Your task to perform on an android device: check battery use Image 0: 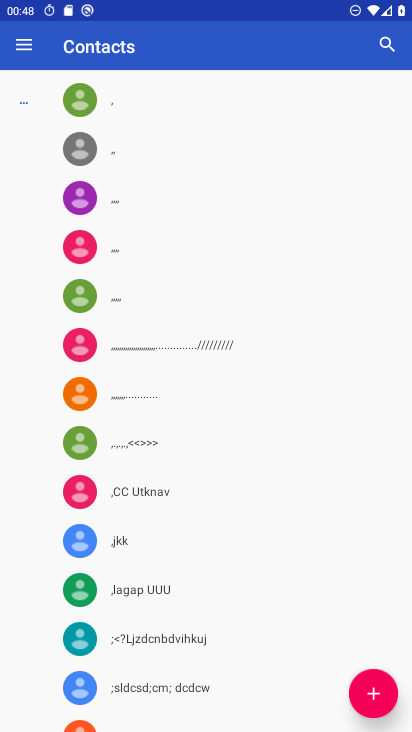
Step 0: press home button
Your task to perform on an android device: check battery use Image 1: 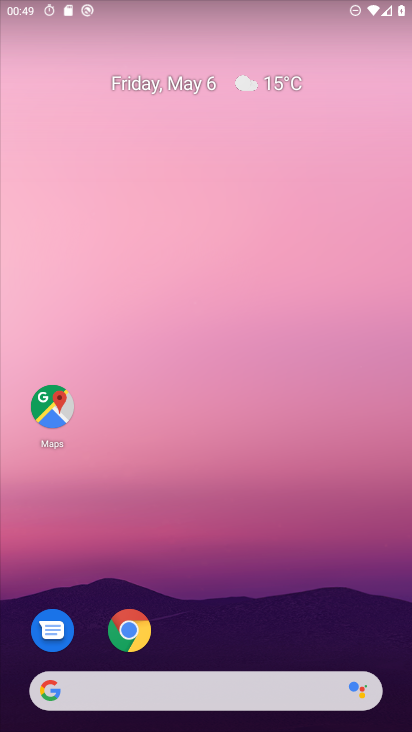
Step 1: drag from (264, 565) to (216, 3)
Your task to perform on an android device: check battery use Image 2: 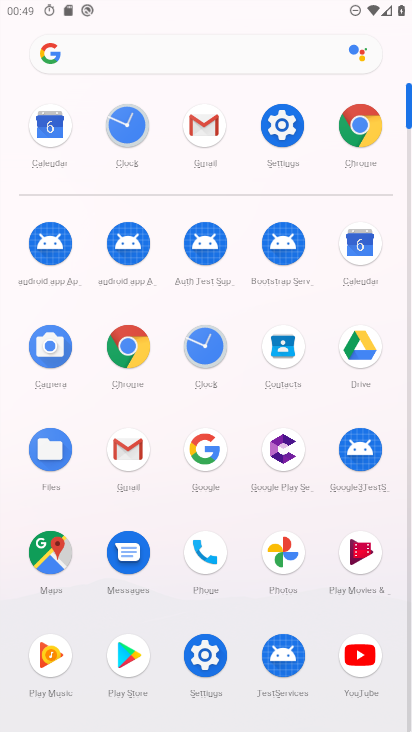
Step 2: click (284, 135)
Your task to perform on an android device: check battery use Image 3: 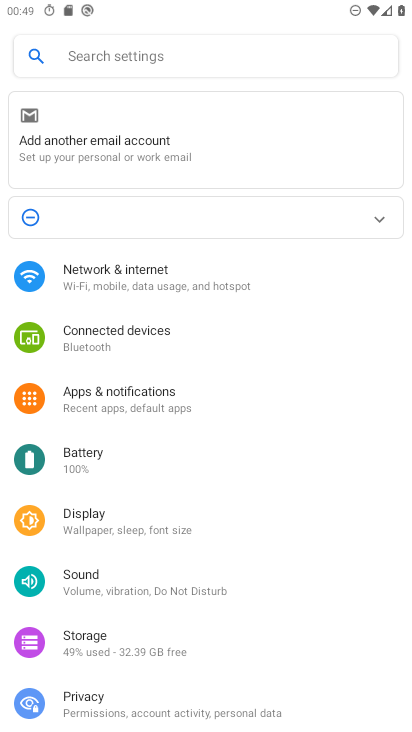
Step 3: click (120, 461)
Your task to perform on an android device: check battery use Image 4: 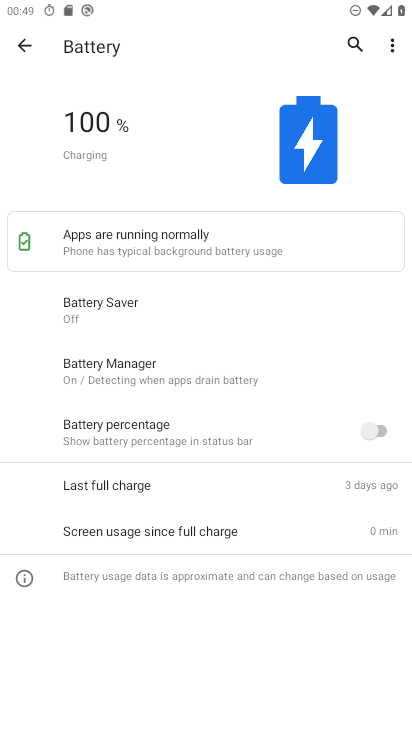
Step 4: click (391, 36)
Your task to perform on an android device: check battery use Image 5: 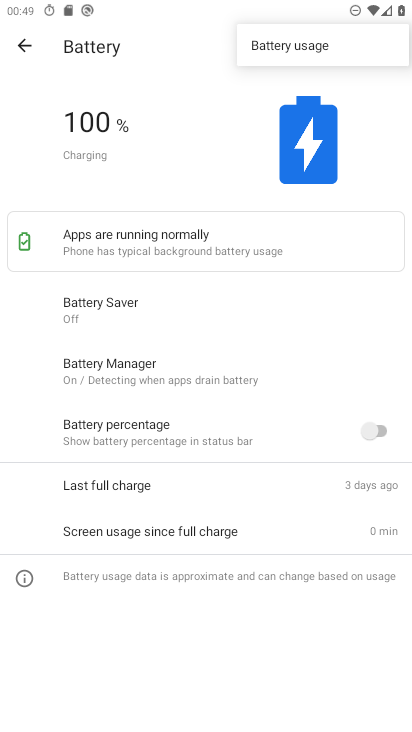
Step 5: click (287, 52)
Your task to perform on an android device: check battery use Image 6: 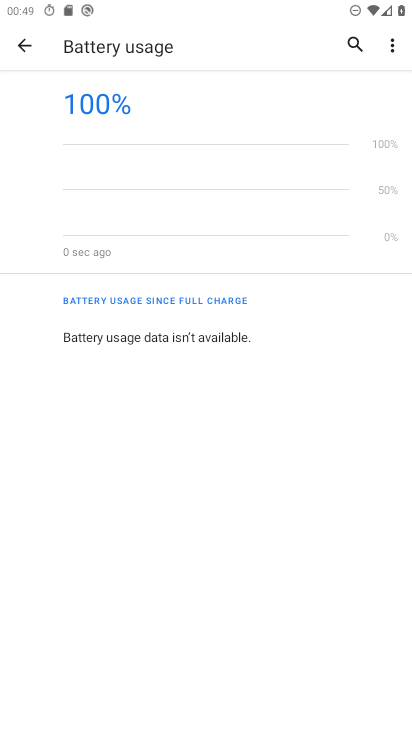
Step 6: task complete